Your task to perform on an android device: Open wifi settings Image 0: 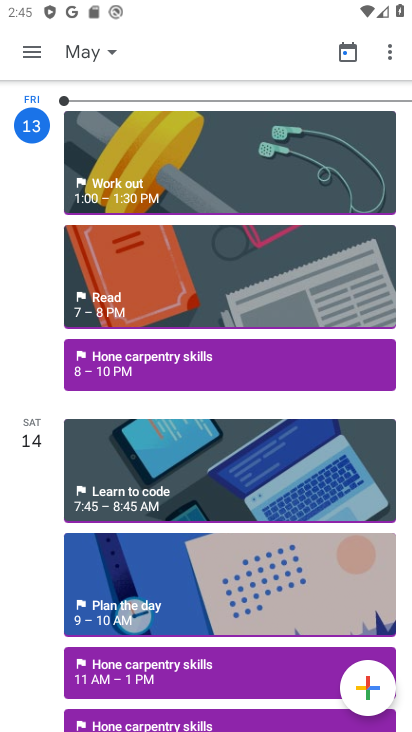
Step 0: press home button
Your task to perform on an android device: Open wifi settings Image 1: 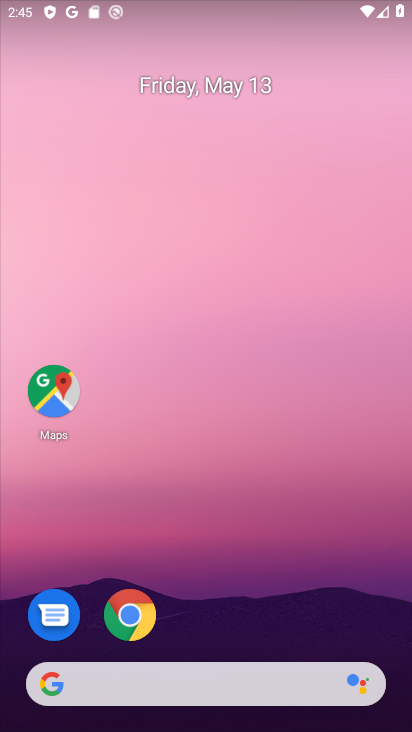
Step 1: drag from (191, 682) to (332, 290)
Your task to perform on an android device: Open wifi settings Image 2: 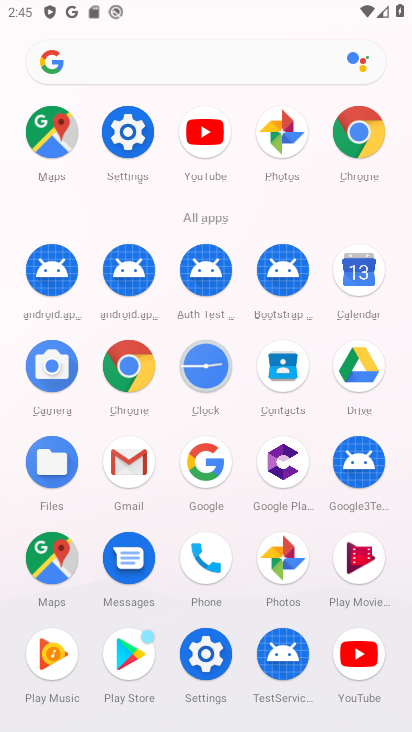
Step 2: click (141, 137)
Your task to perform on an android device: Open wifi settings Image 3: 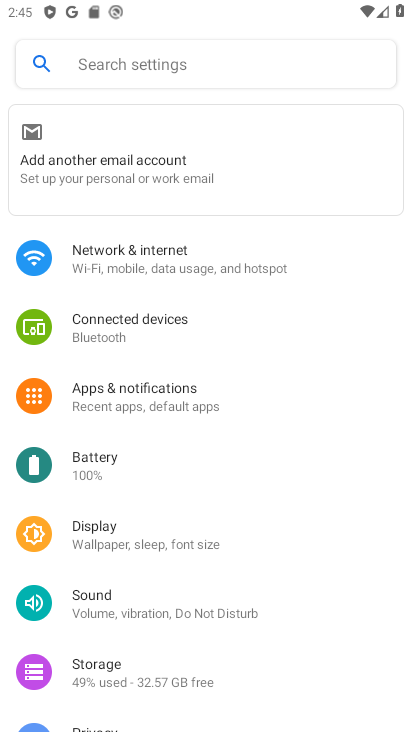
Step 3: click (150, 271)
Your task to perform on an android device: Open wifi settings Image 4: 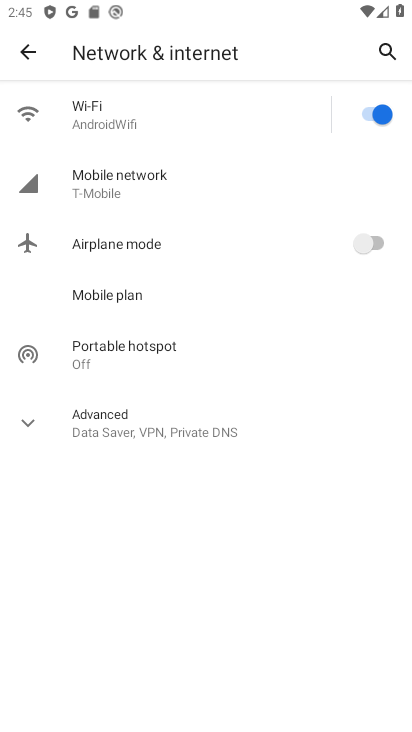
Step 4: click (132, 124)
Your task to perform on an android device: Open wifi settings Image 5: 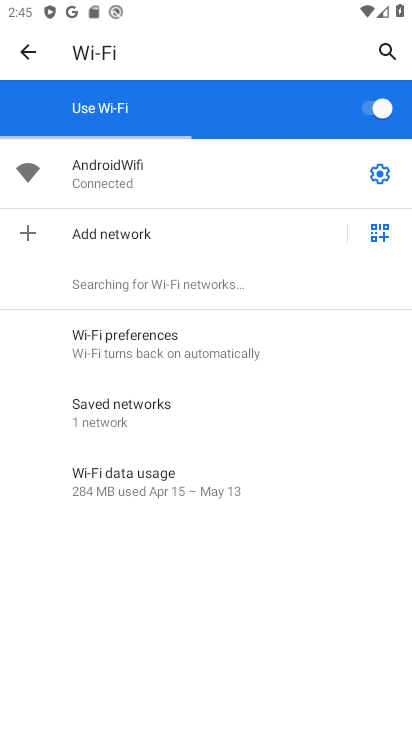
Step 5: task complete